Your task to perform on an android device: Go to sound settings Image 0: 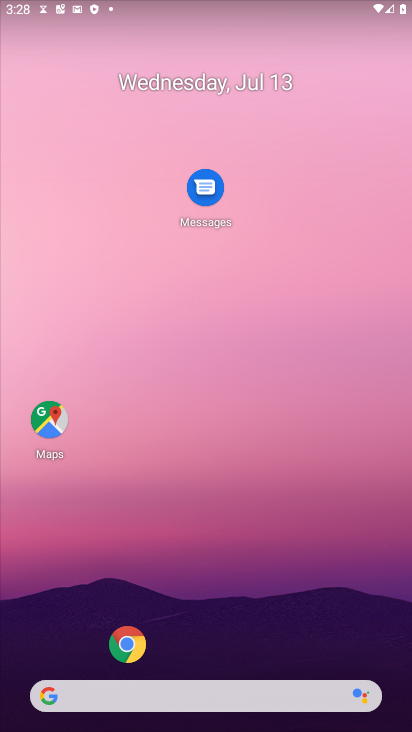
Step 0: drag from (87, 447) to (124, 267)
Your task to perform on an android device: Go to sound settings Image 1: 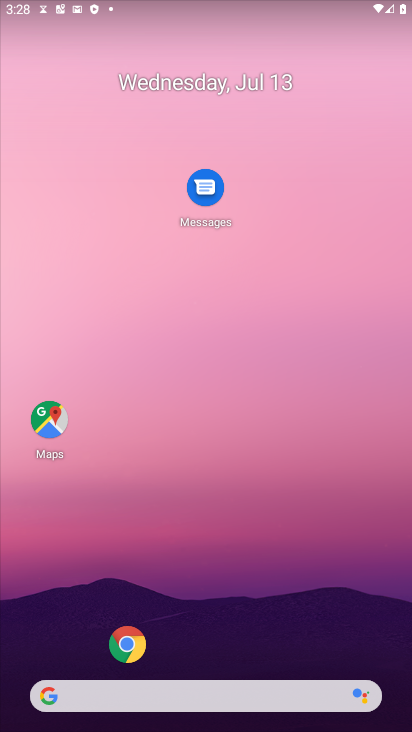
Step 1: drag from (112, 208) to (158, 62)
Your task to perform on an android device: Go to sound settings Image 2: 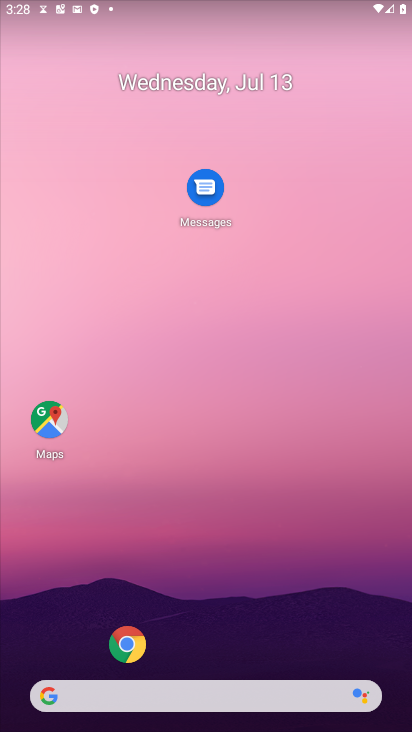
Step 2: drag from (130, 286) to (170, 62)
Your task to perform on an android device: Go to sound settings Image 3: 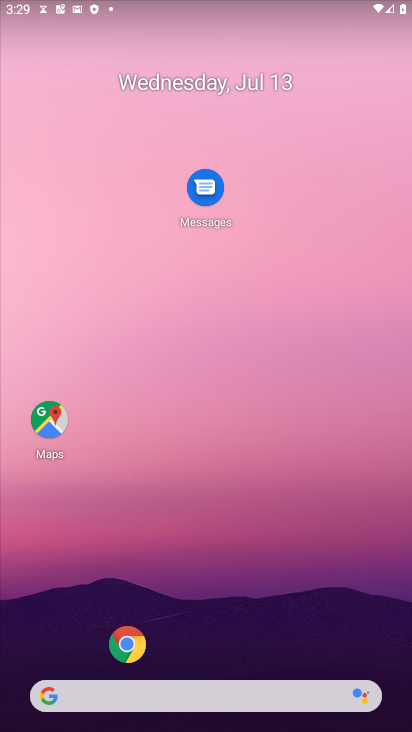
Step 3: drag from (287, 675) to (232, 6)
Your task to perform on an android device: Go to sound settings Image 4: 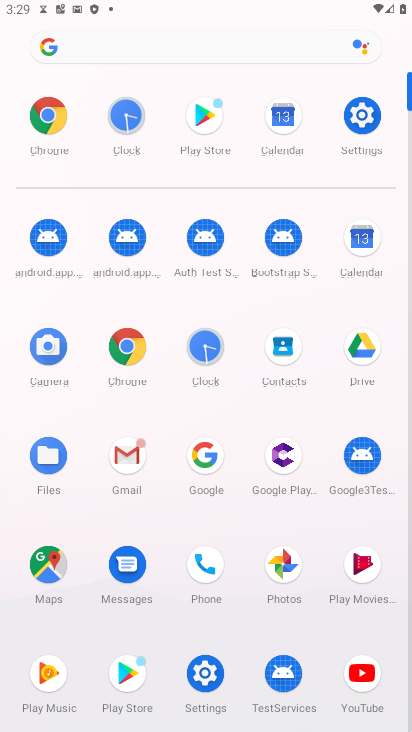
Step 4: click (196, 655)
Your task to perform on an android device: Go to sound settings Image 5: 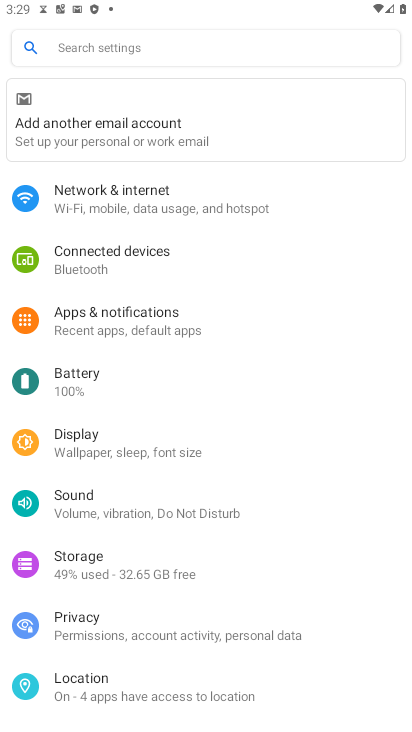
Step 5: click (101, 509)
Your task to perform on an android device: Go to sound settings Image 6: 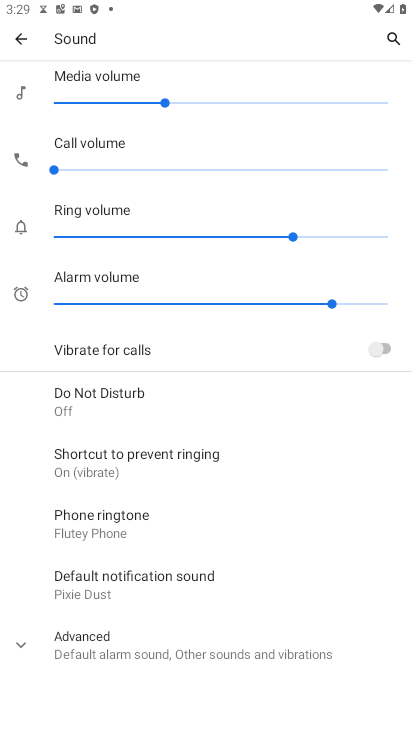
Step 6: task complete